Your task to perform on an android device: set the stopwatch Image 0: 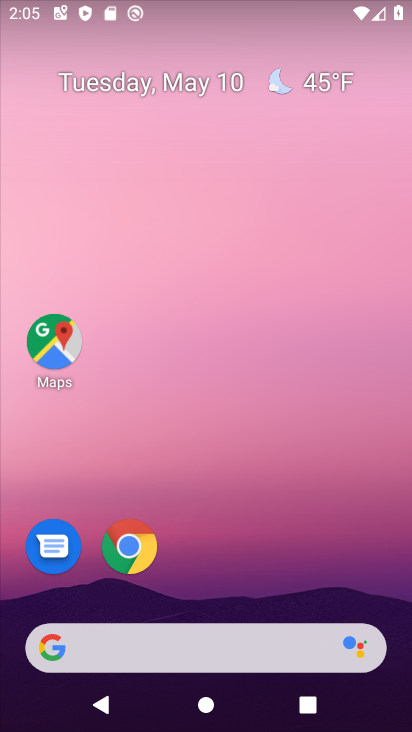
Step 0: drag from (291, 565) to (280, 154)
Your task to perform on an android device: set the stopwatch Image 1: 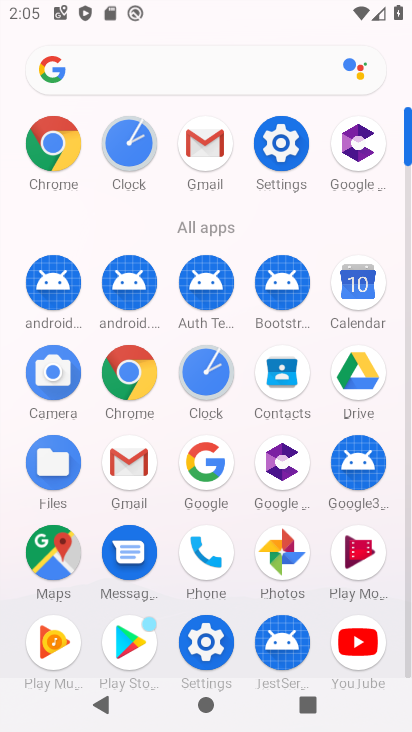
Step 1: click (198, 391)
Your task to perform on an android device: set the stopwatch Image 2: 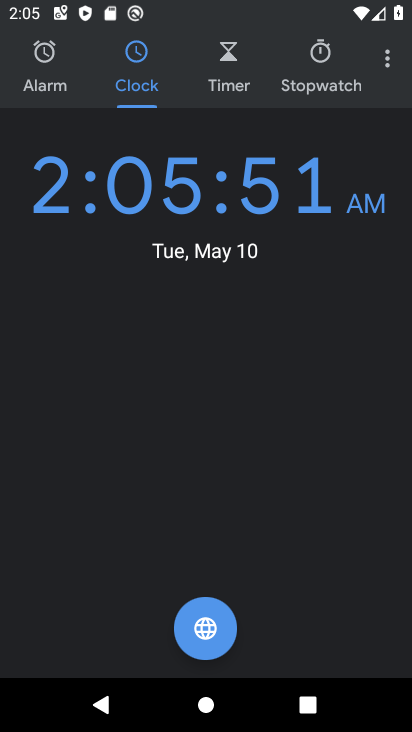
Step 2: click (307, 80)
Your task to perform on an android device: set the stopwatch Image 3: 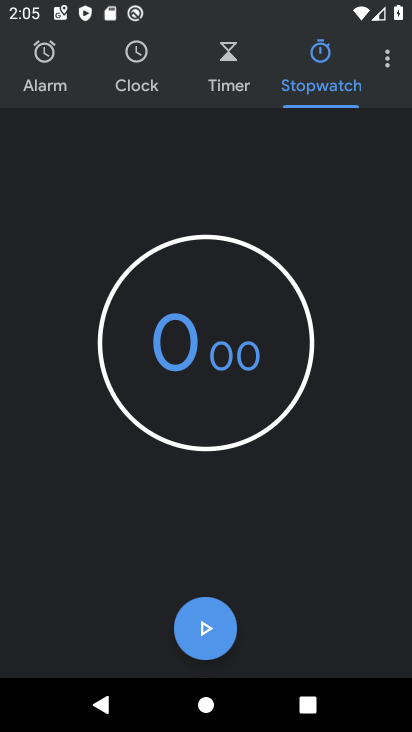
Step 3: click (223, 612)
Your task to perform on an android device: set the stopwatch Image 4: 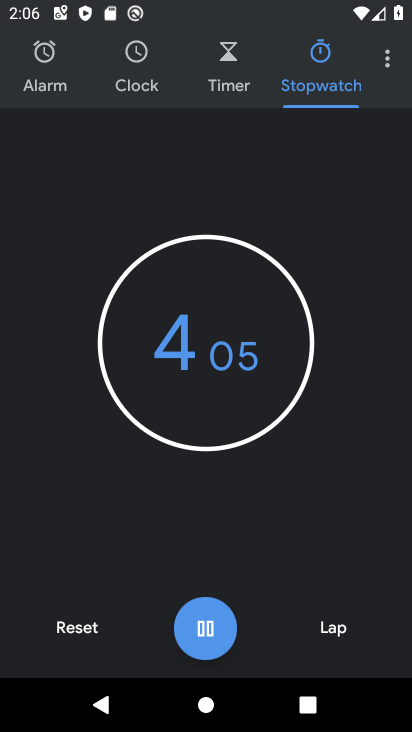
Step 4: task complete